Your task to perform on an android device: Show me productivity apps on the Play Store Image 0: 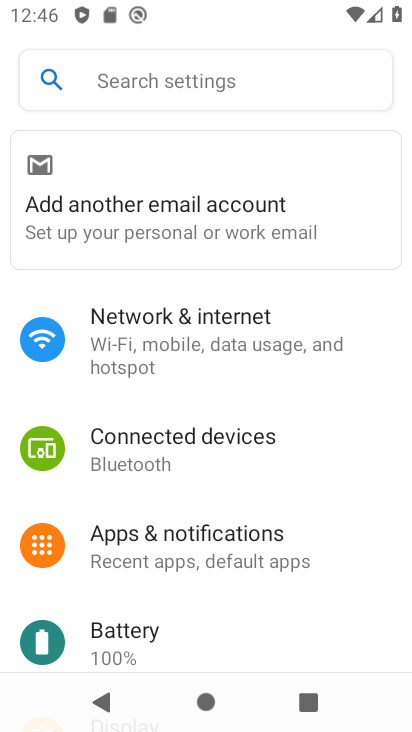
Step 0: press home button
Your task to perform on an android device: Show me productivity apps on the Play Store Image 1: 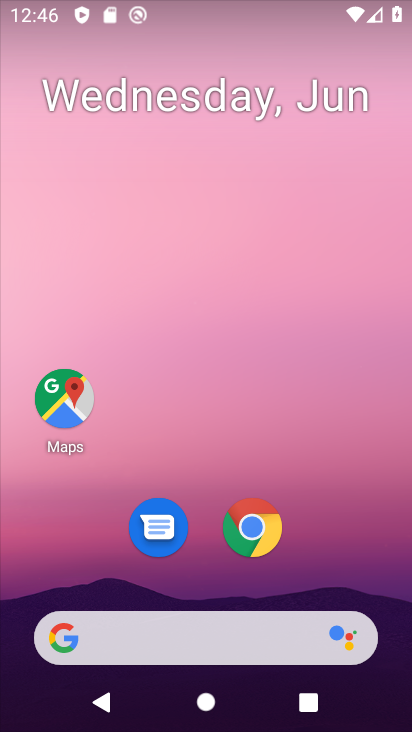
Step 1: drag from (186, 613) to (307, 192)
Your task to perform on an android device: Show me productivity apps on the Play Store Image 2: 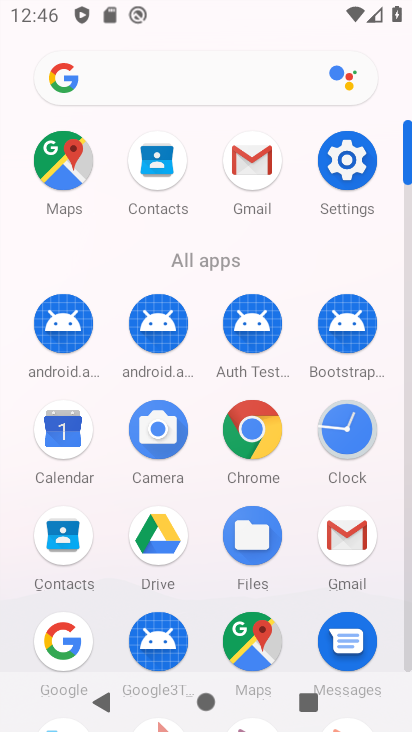
Step 2: drag from (153, 602) to (240, 270)
Your task to perform on an android device: Show me productivity apps on the Play Store Image 3: 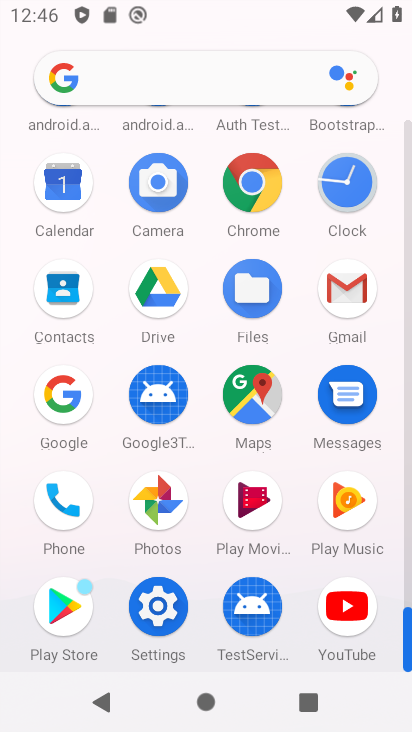
Step 3: click (74, 588)
Your task to perform on an android device: Show me productivity apps on the Play Store Image 4: 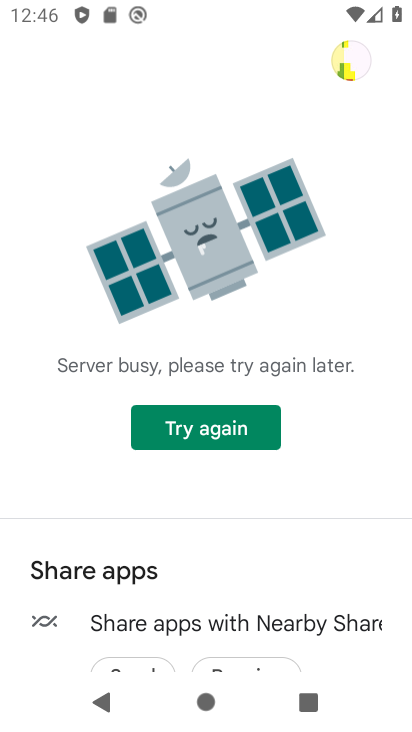
Step 4: click (239, 406)
Your task to perform on an android device: Show me productivity apps on the Play Store Image 5: 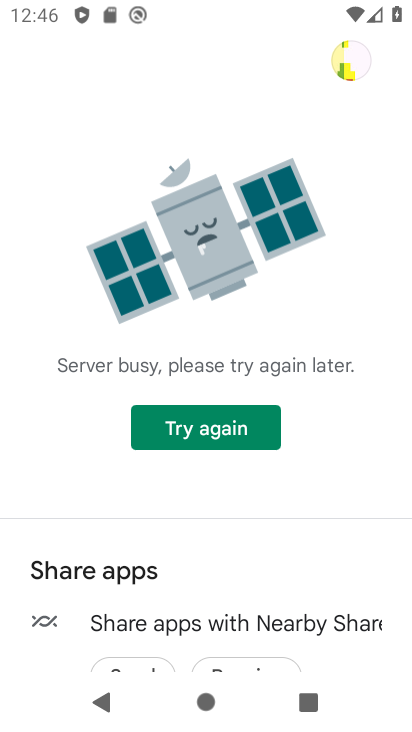
Step 5: task complete